Your task to perform on an android device: change alarm snooze length Image 0: 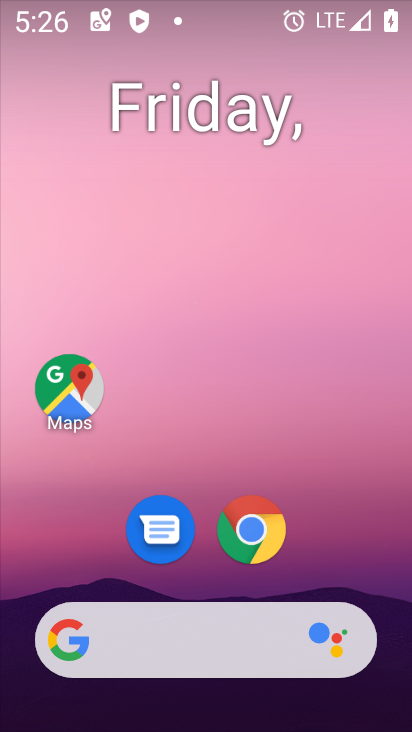
Step 0: drag from (343, 465) to (258, 56)
Your task to perform on an android device: change alarm snooze length Image 1: 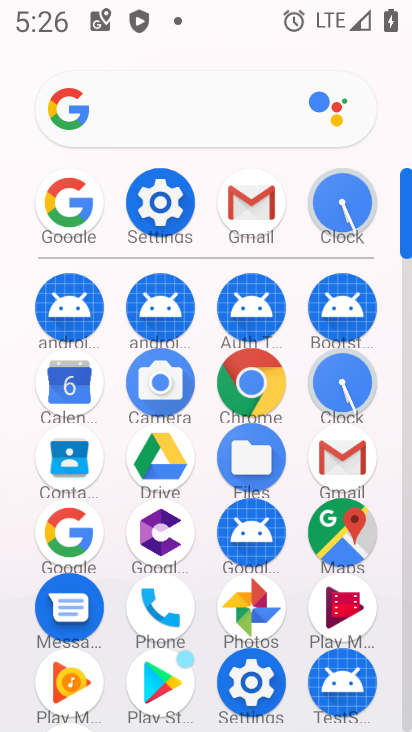
Step 1: click (332, 375)
Your task to perform on an android device: change alarm snooze length Image 2: 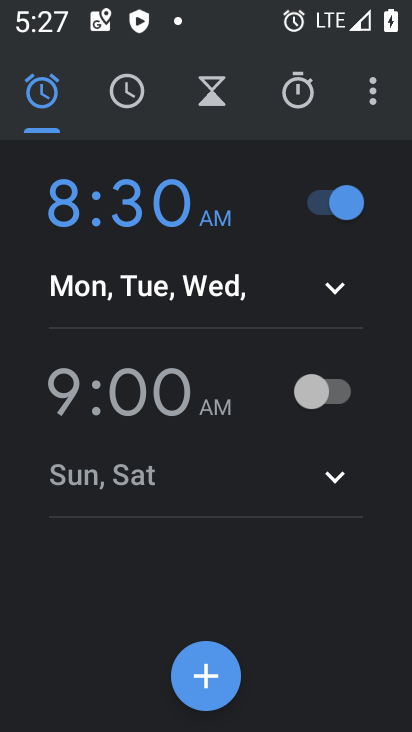
Step 2: click (379, 78)
Your task to perform on an android device: change alarm snooze length Image 3: 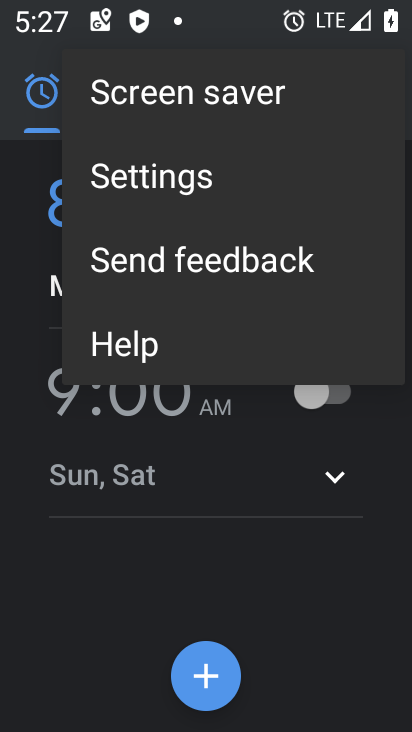
Step 3: click (216, 184)
Your task to perform on an android device: change alarm snooze length Image 4: 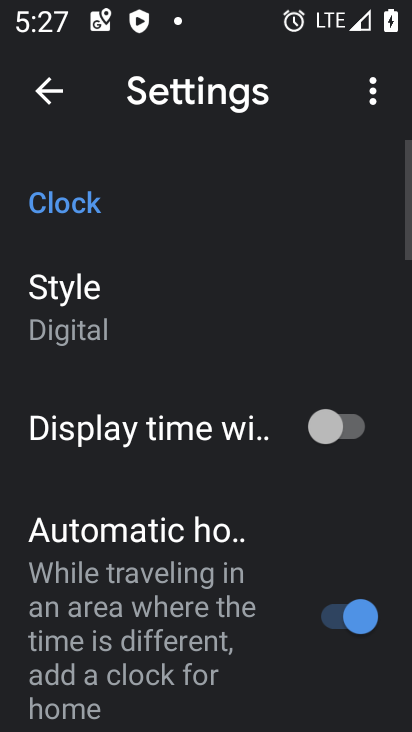
Step 4: drag from (171, 653) to (118, 152)
Your task to perform on an android device: change alarm snooze length Image 5: 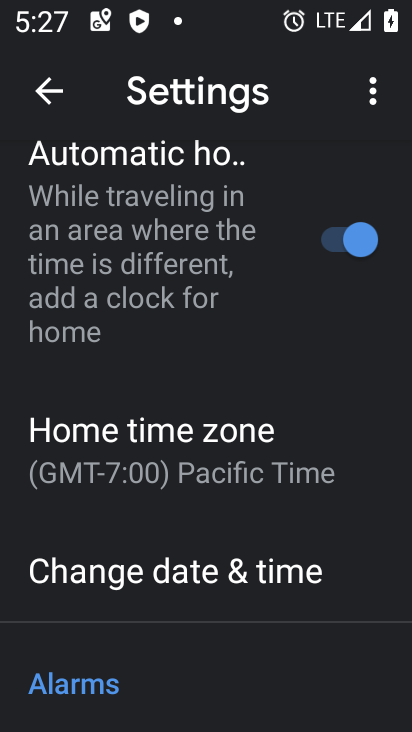
Step 5: drag from (189, 595) to (244, 164)
Your task to perform on an android device: change alarm snooze length Image 6: 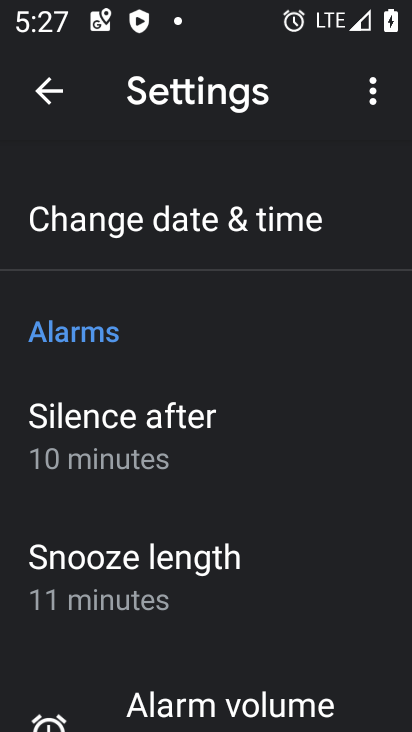
Step 6: click (203, 563)
Your task to perform on an android device: change alarm snooze length Image 7: 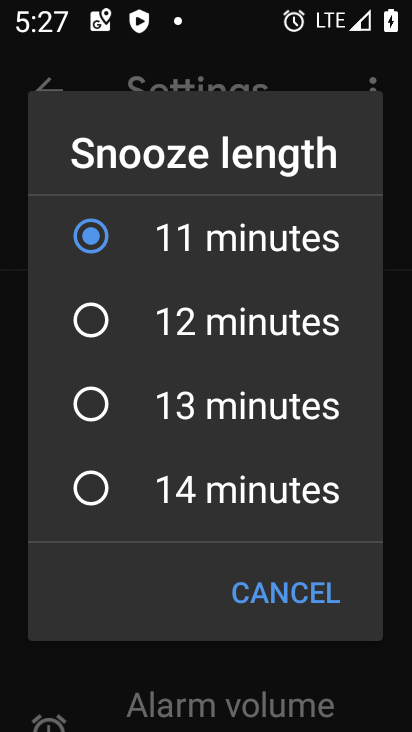
Step 7: click (211, 417)
Your task to perform on an android device: change alarm snooze length Image 8: 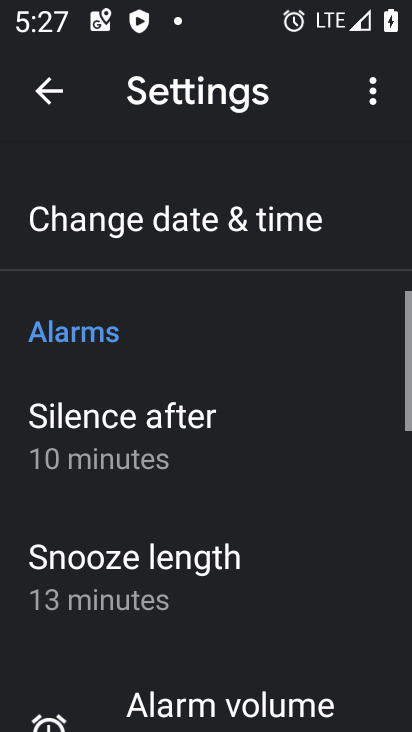
Step 8: task complete